Your task to perform on an android device: Go to eBay Image 0: 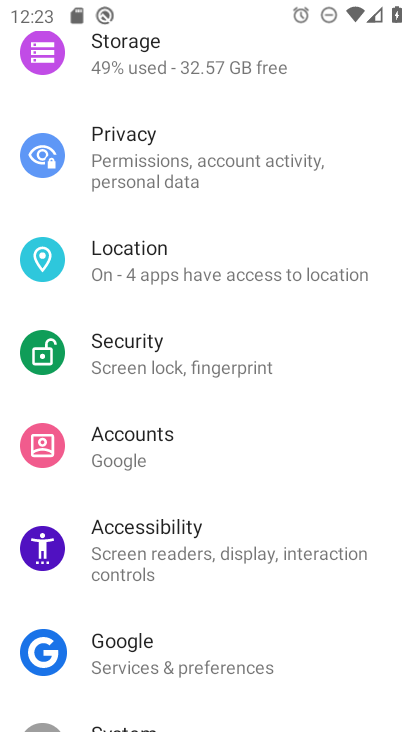
Step 0: press home button
Your task to perform on an android device: Go to eBay Image 1: 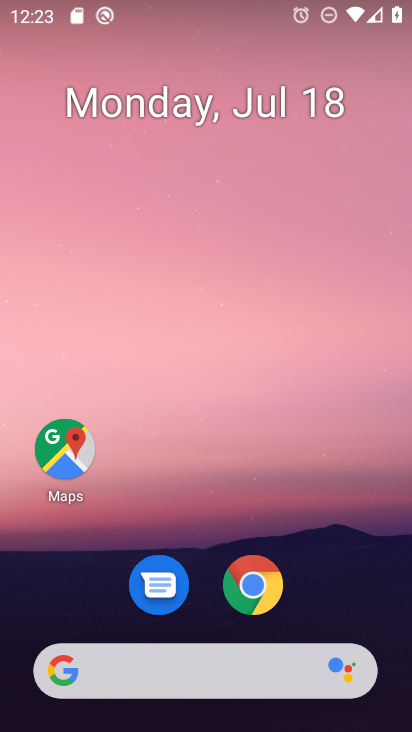
Step 1: click (237, 677)
Your task to perform on an android device: Go to eBay Image 2: 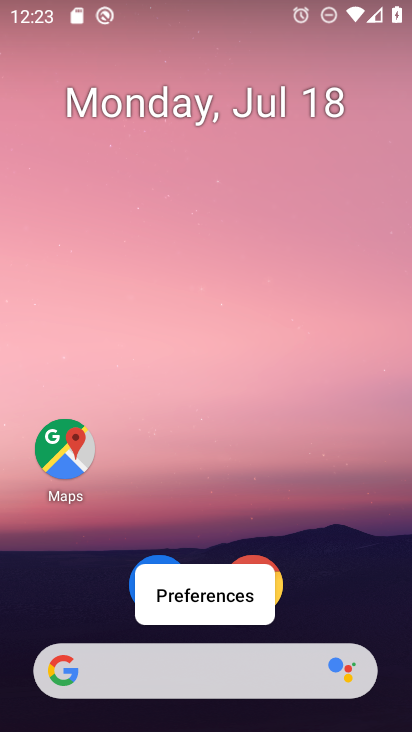
Step 2: click (197, 677)
Your task to perform on an android device: Go to eBay Image 3: 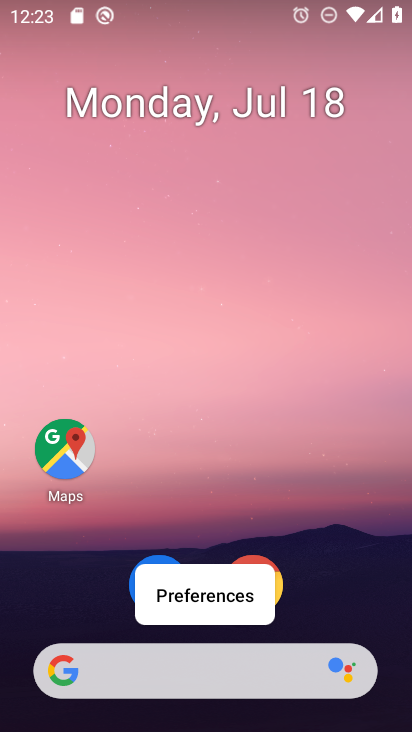
Step 3: click (163, 655)
Your task to perform on an android device: Go to eBay Image 4: 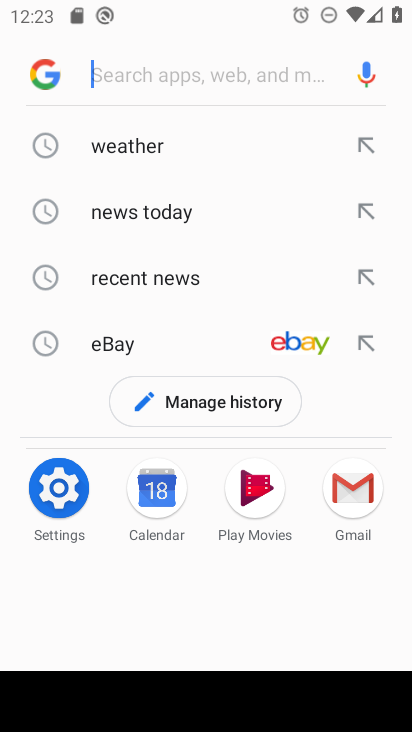
Step 4: click (306, 336)
Your task to perform on an android device: Go to eBay Image 5: 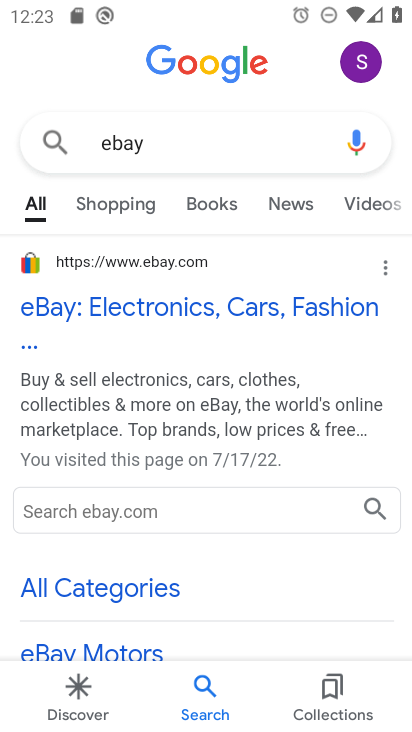
Step 5: click (57, 305)
Your task to perform on an android device: Go to eBay Image 6: 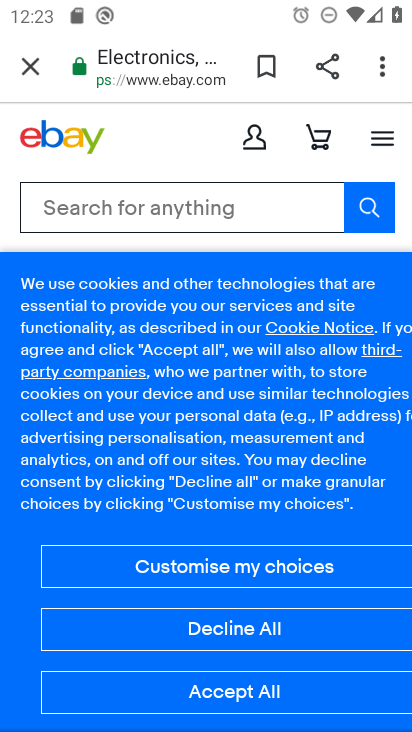
Step 6: task complete